Your task to perform on an android device: open a bookmark in the chrome app Image 0: 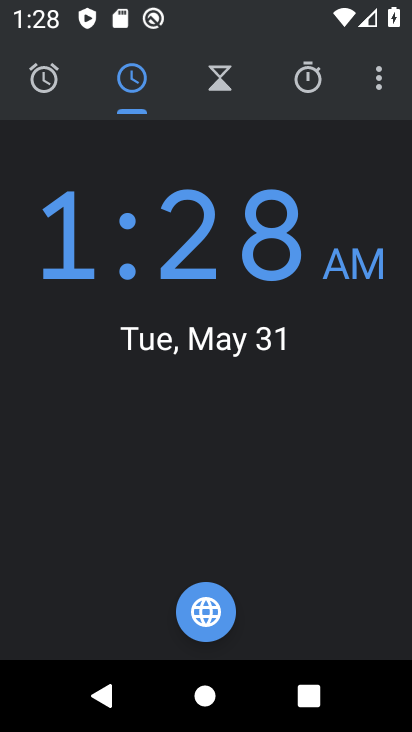
Step 0: press home button
Your task to perform on an android device: open a bookmark in the chrome app Image 1: 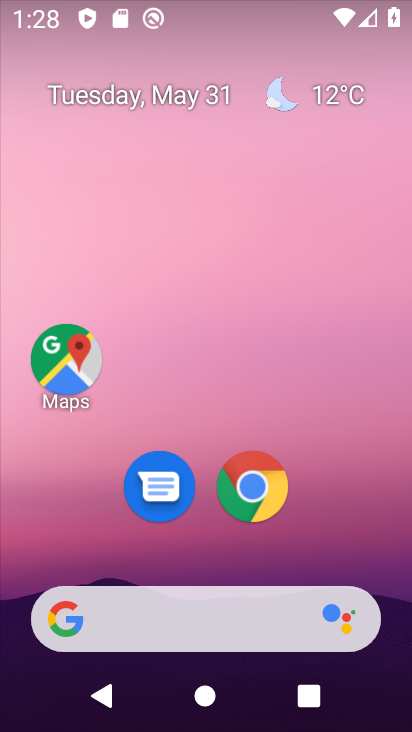
Step 1: click (247, 480)
Your task to perform on an android device: open a bookmark in the chrome app Image 2: 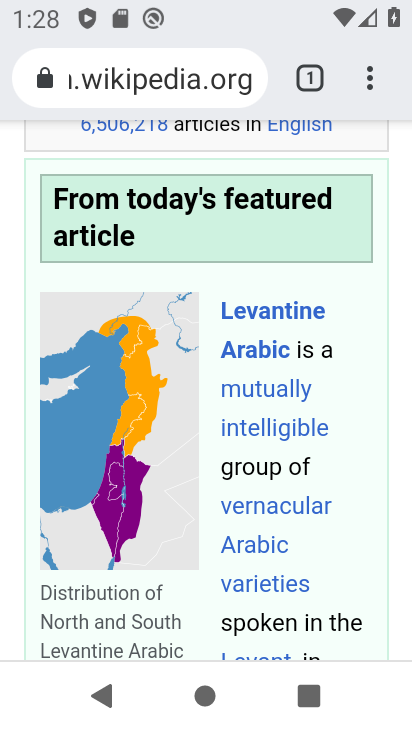
Step 2: click (366, 82)
Your task to perform on an android device: open a bookmark in the chrome app Image 3: 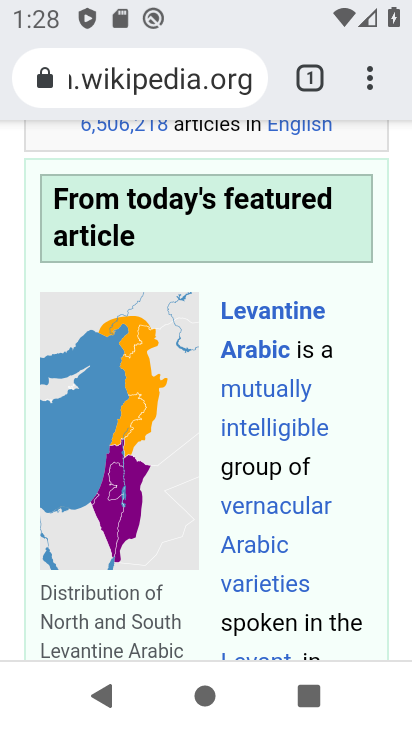
Step 3: click (371, 83)
Your task to perform on an android device: open a bookmark in the chrome app Image 4: 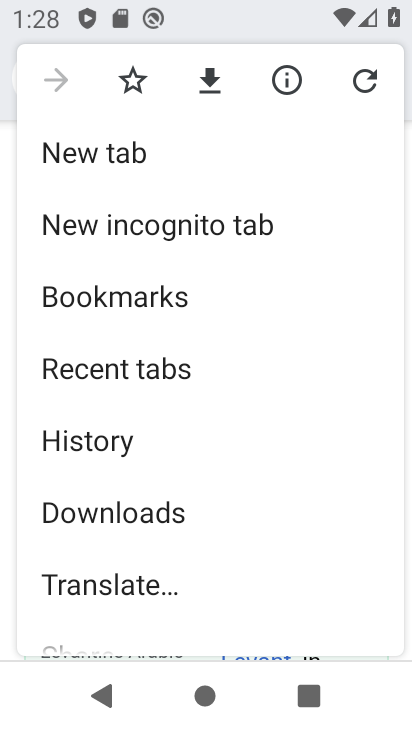
Step 4: click (123, 303)
Your task to perform on an android device: open a bookmark in the chrome app Image 5: 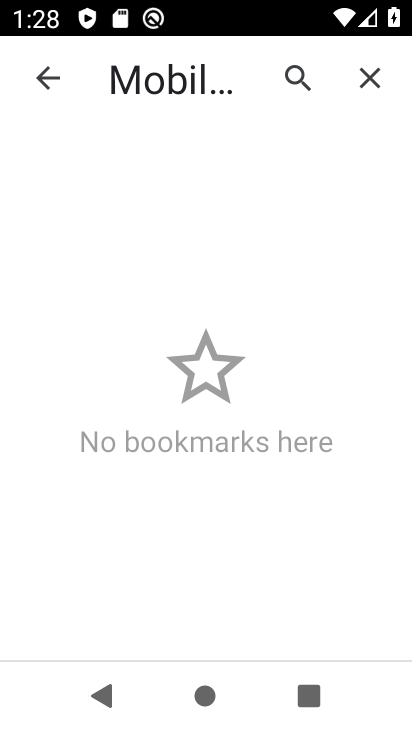
Step 5: task complete